Your task to perform on an android device: Open Chrome and go to the settings page Image 0: 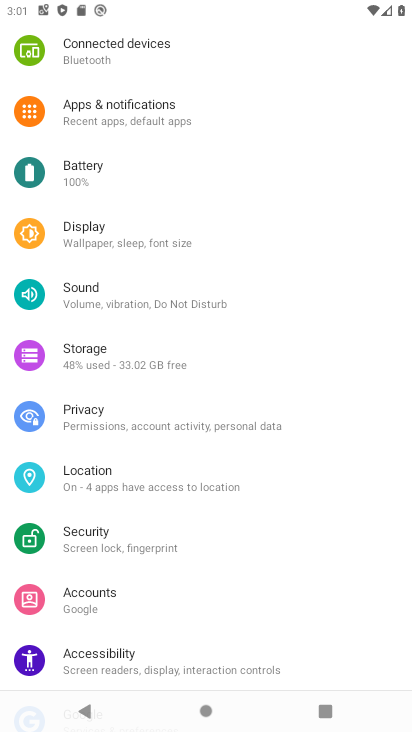
Step 0: press home button
Your task to perform on an android device: Open Chrome and go to the settings page Image 1: 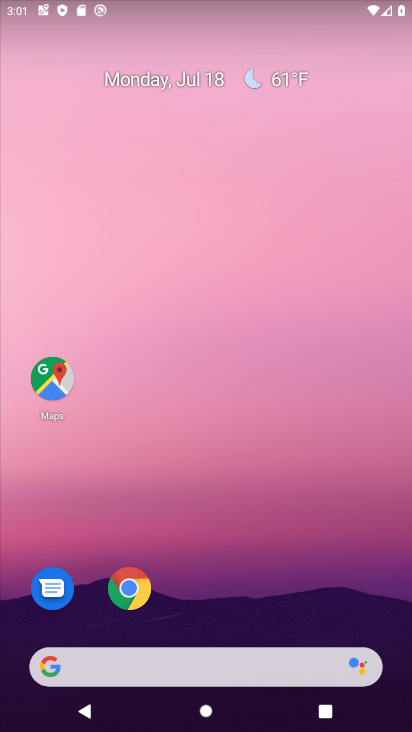
Step 1: click (122, 610)
Your task to perform on an android device: Open Chrome and go to the settings page Image 2: 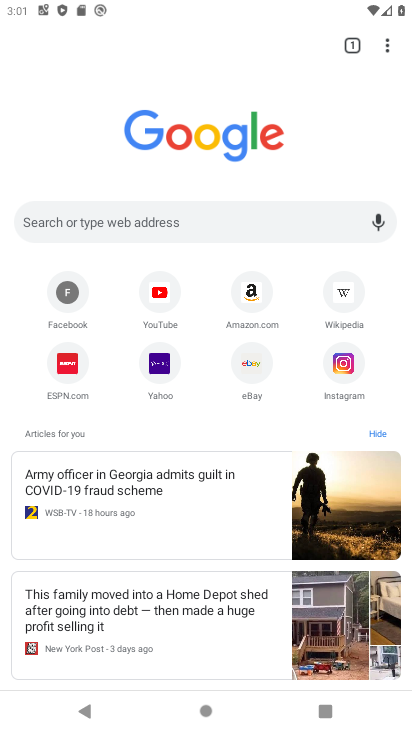
Step 2: click (389, 51)
Your task to perform on an android device: Open Chrome and go to the settings page Image 3: 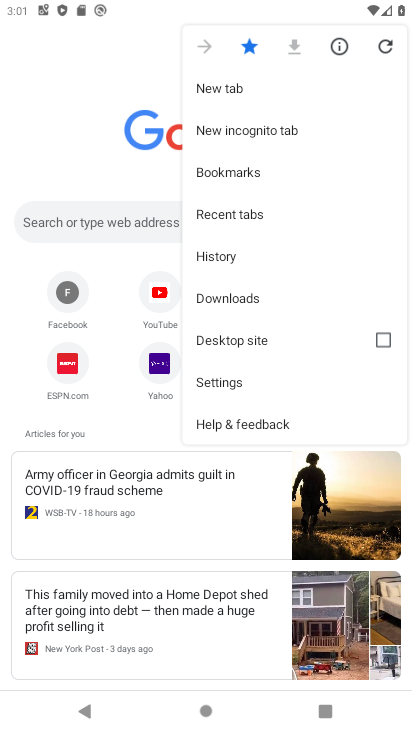
Step 3: click (254, 380)
Your task to perform on an android device: Open Chrome and go to the settings page Image 4: 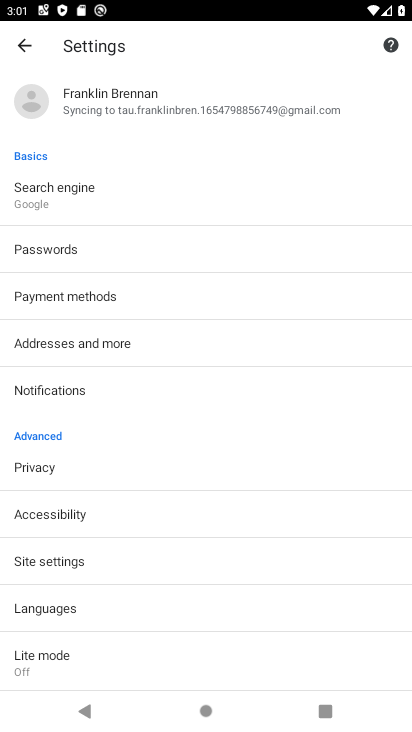
Step 4: task complete